Your task to perform on an android device: turn on airplane mode Image 0: 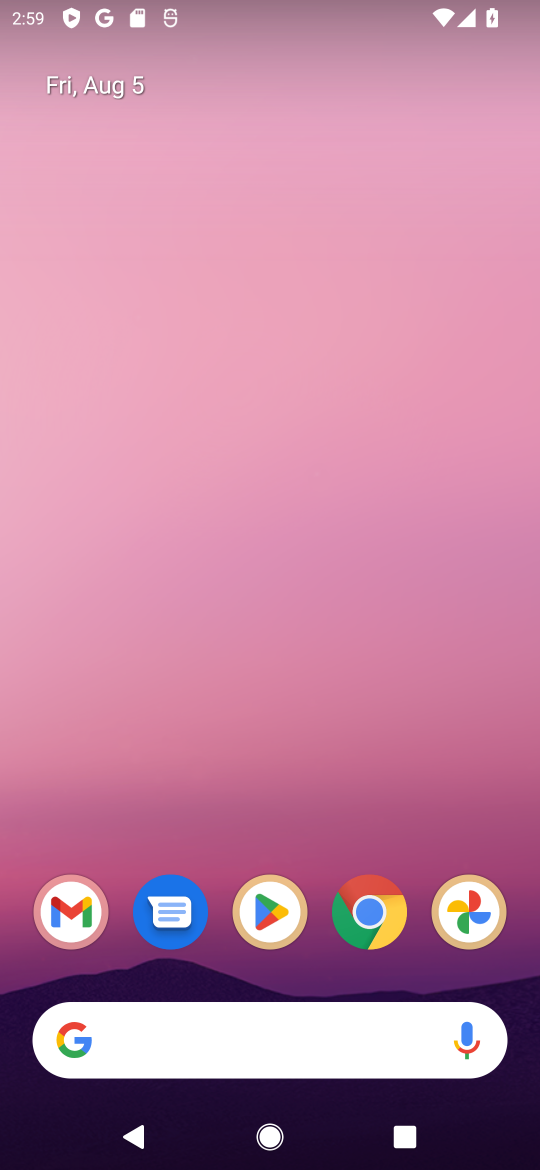
Step 0: drag from (277, 1003) to (304, 131)
Your task to perform on an android device: turn on airplane mode Image 1: 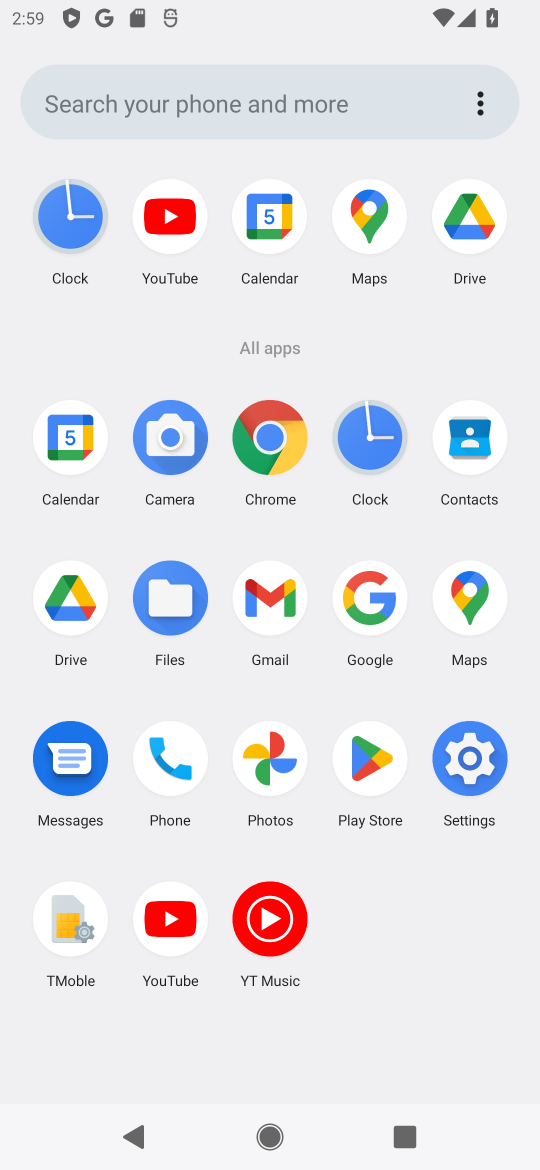
Step 1: click (471, 776)
Your task to perform on an android device: turn on airplane mode Image 2: 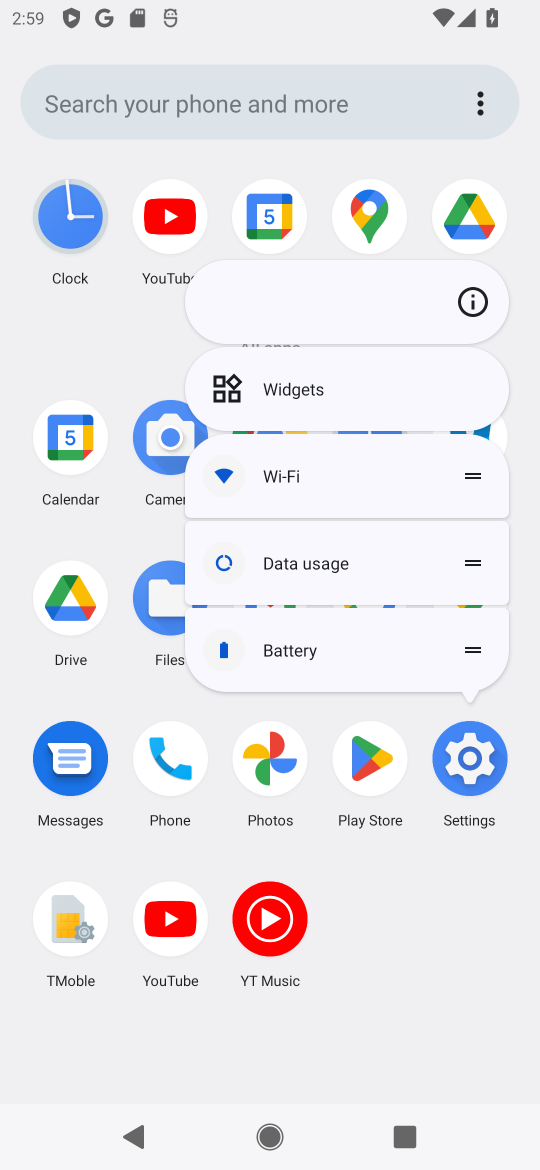
Step 2: click (487, 773)
Your task to perform on an android device: turn on airplane mode Image 3: 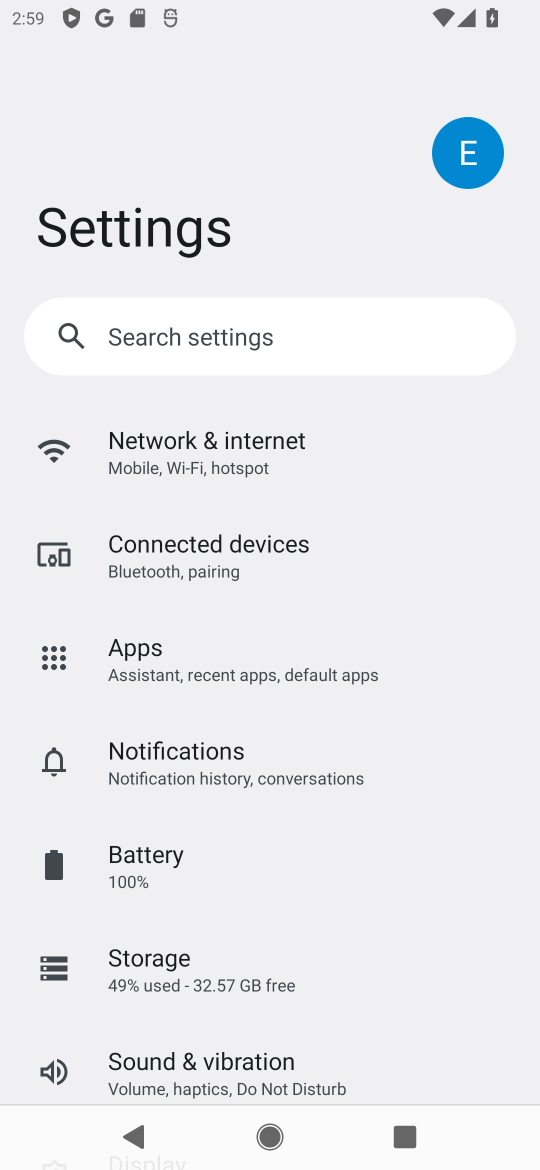
Step 3: click (237, 449)
Your task to perform on an android device: turn on airplane mode Image 4: 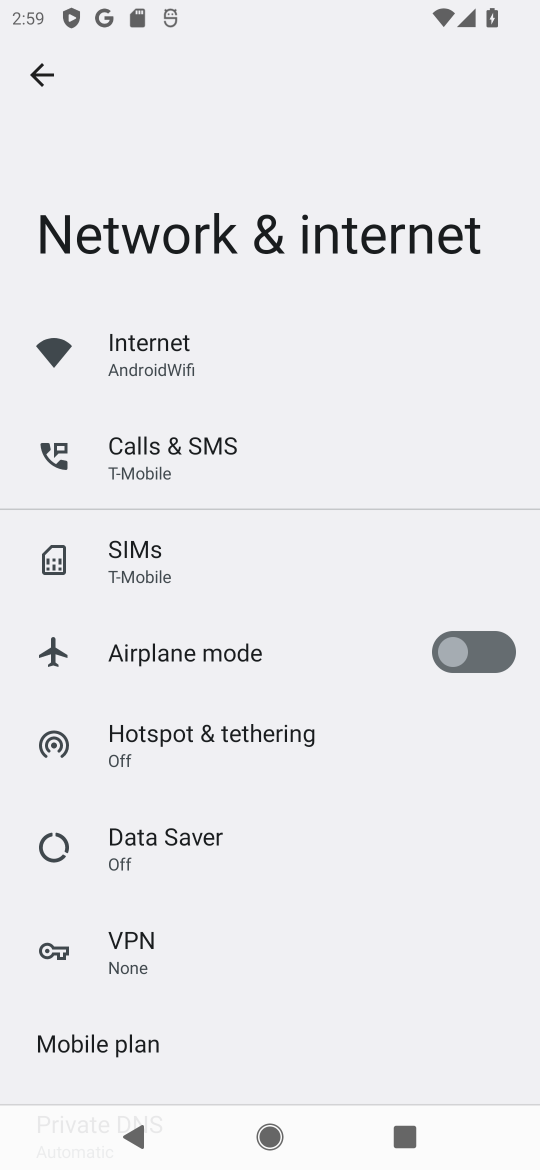
Step 4: click (254, 652)
Your task to perform on an android device: turn on airplane mode Image 5: 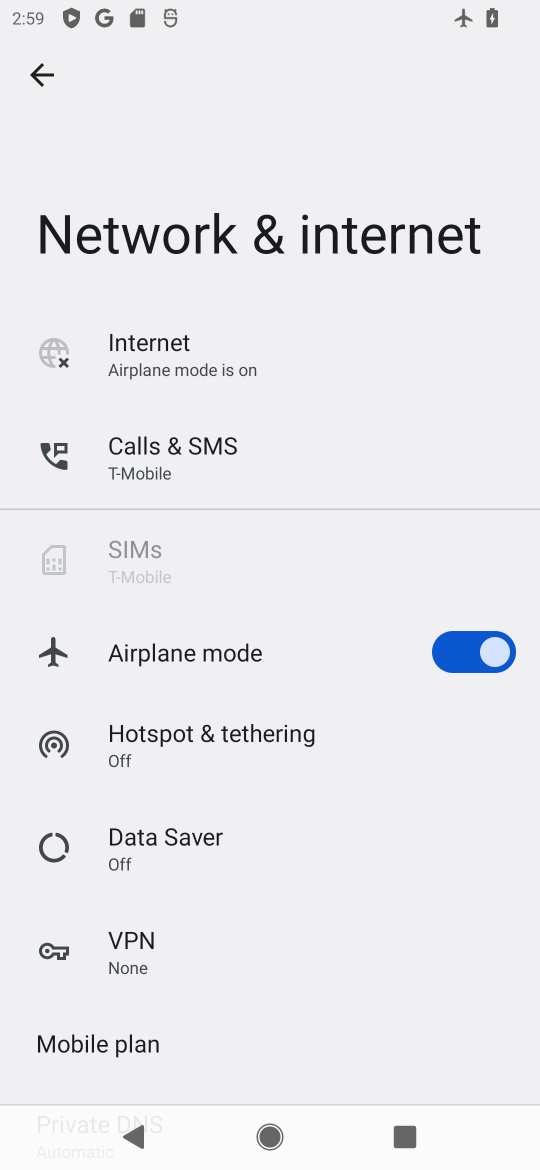
Step 5: task complete